Your task to perform on an android device: Open the stopwatch Image 0: 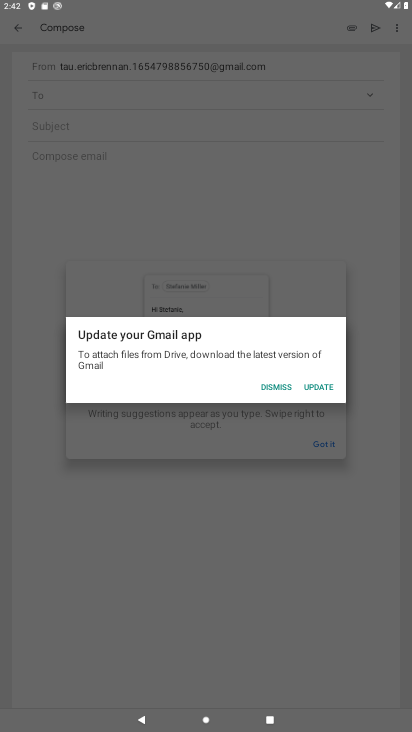
Step 0: press home button
Your task to perform on an android device: Open the stopwatch Image 1: 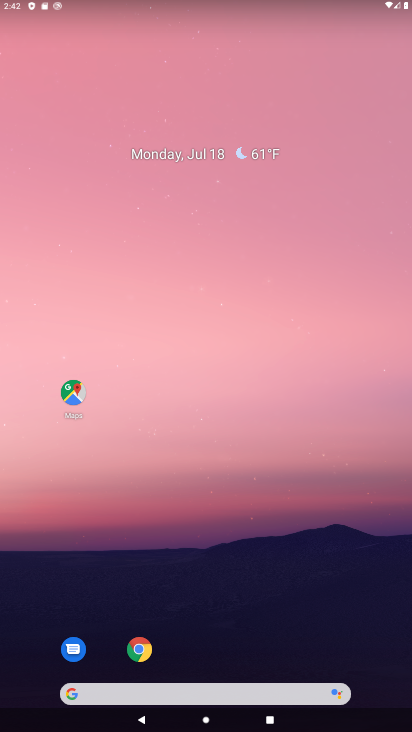
Step 1: drag from (37, 614) to (149, 174)
Your task to perform on an android device: Open the stopwatch Image 2: 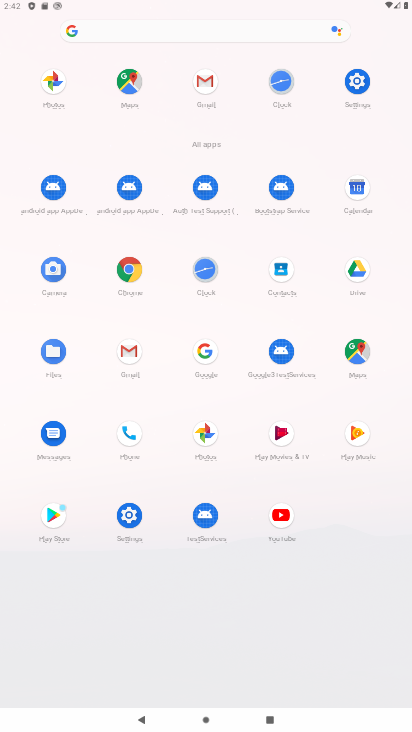
Step 2: click (299, 94)
Your task to perform on an android device: Open the stopwatch Image 3: 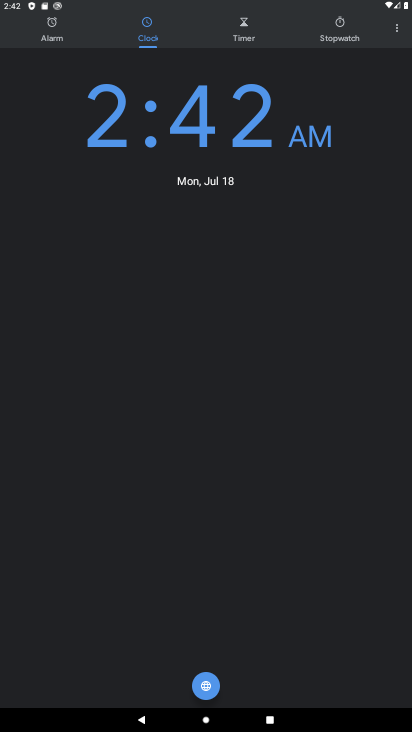
Step 3: click (327, 26)
Your task to perform on an android device: Open the stopwatch Image 4: 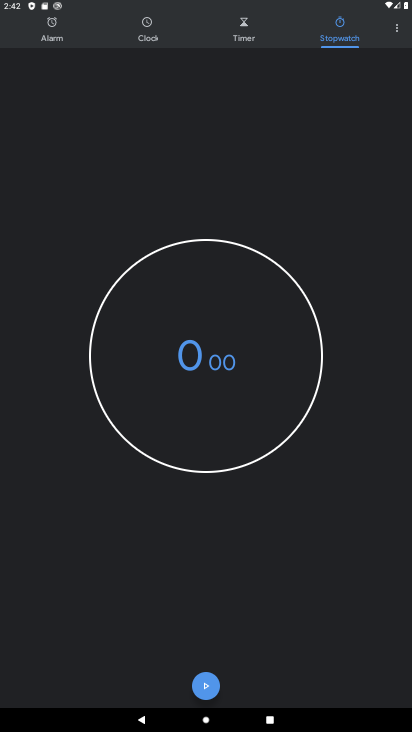
Step 4: click (203, 686)
Your task to perform on an android device: Open the stopwatch Image 5: 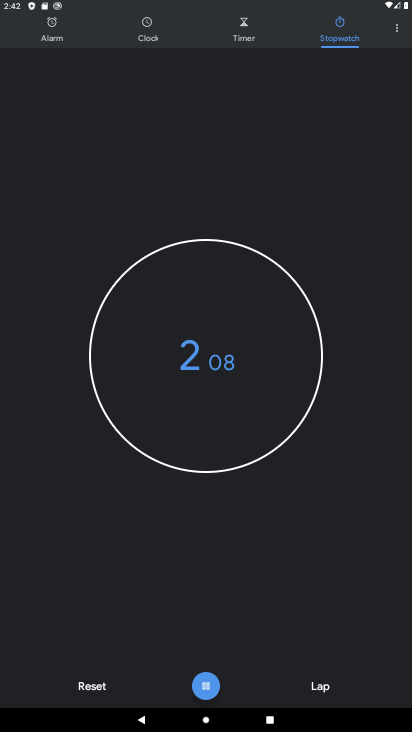
Step 5: click (205, 682)
Your task to perform on an android device: Open the stopwatch Image 6: 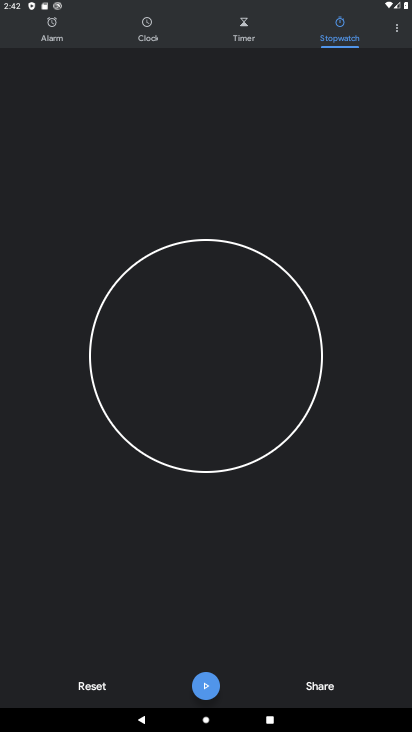
Step 6: task complete